Your task to perform on an android device: Search for seafood restaurants on Google Maps Image 0: 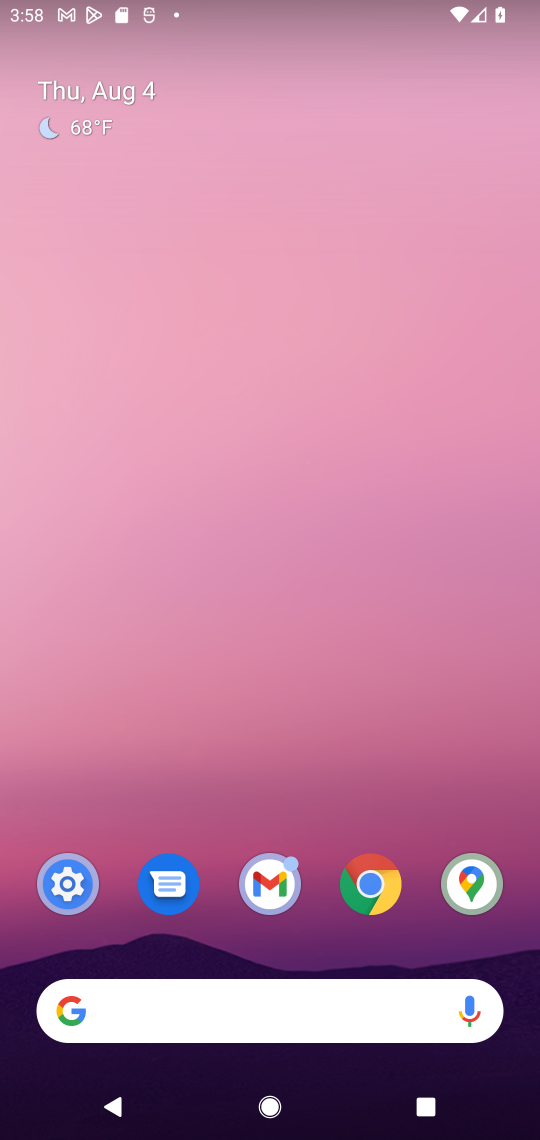
Step 0: drag from (216, 968) to (216, 410)
Your task to perform on an android device: Search for seafood restaurants on Google Maps Image 1: 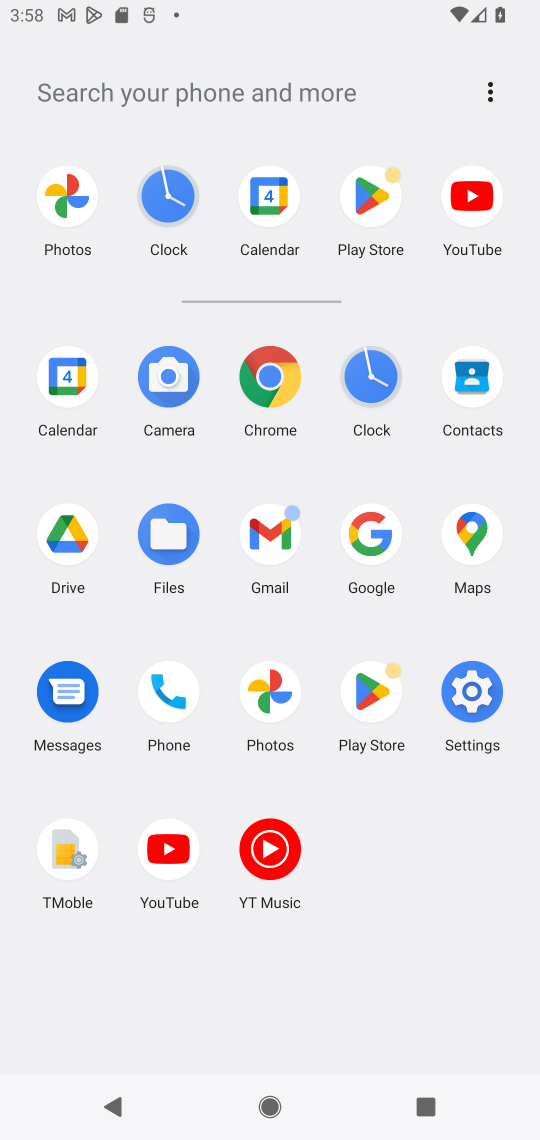
Step 1: click (464, 537)
Your task to perform on an android device: Search for seafood restaurants on Google Maps Image 2: 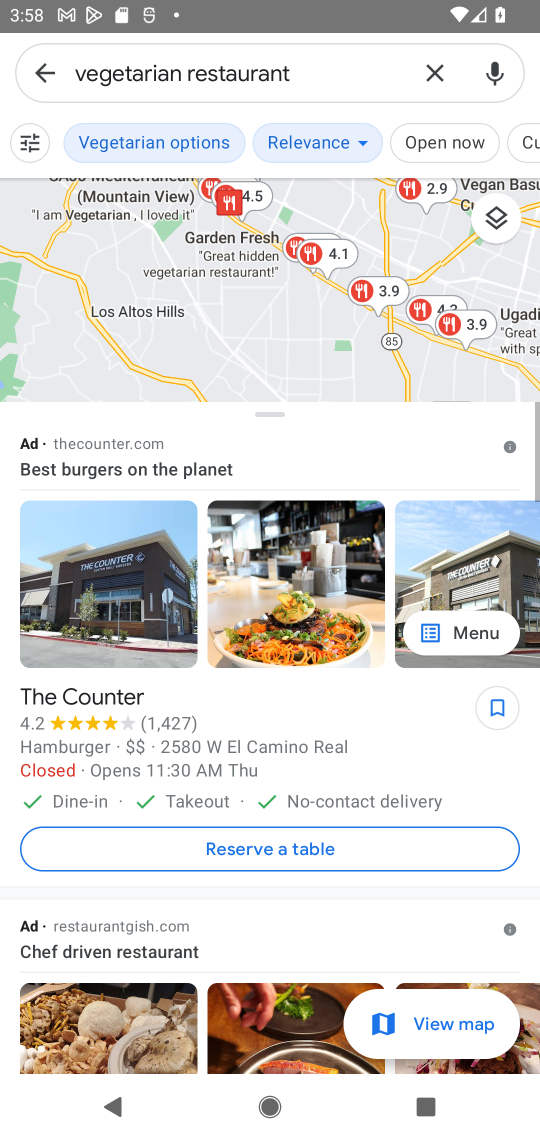
Step 2: click (435, 74)
Your task to perform on an android device: Search for seafood restaurants on Google Maps Image 3: 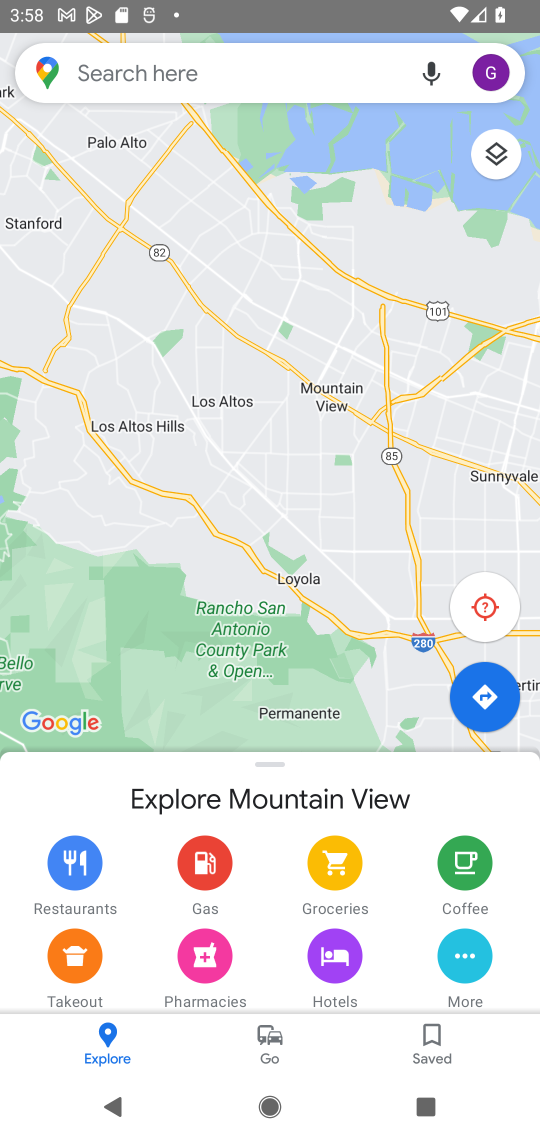
Step 3: type "seafoood"
Your task to perform on an android device: Search for seafood restaurants on Google Maps Image 4: 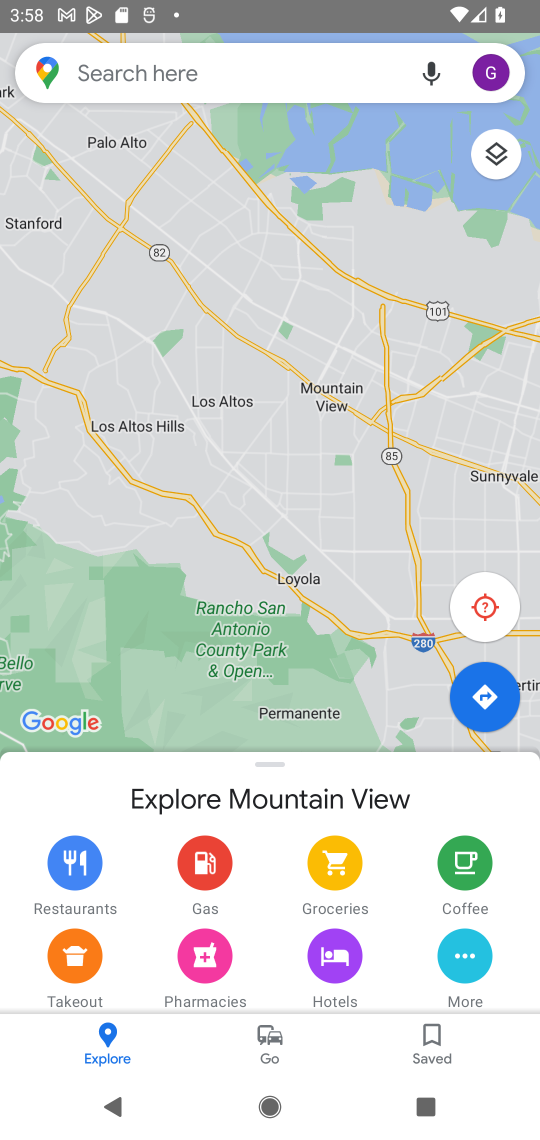
Step 4: click (214, 93)
Your task to perform on an android device: Search for seafood restaurants on Google Maps Image 5: 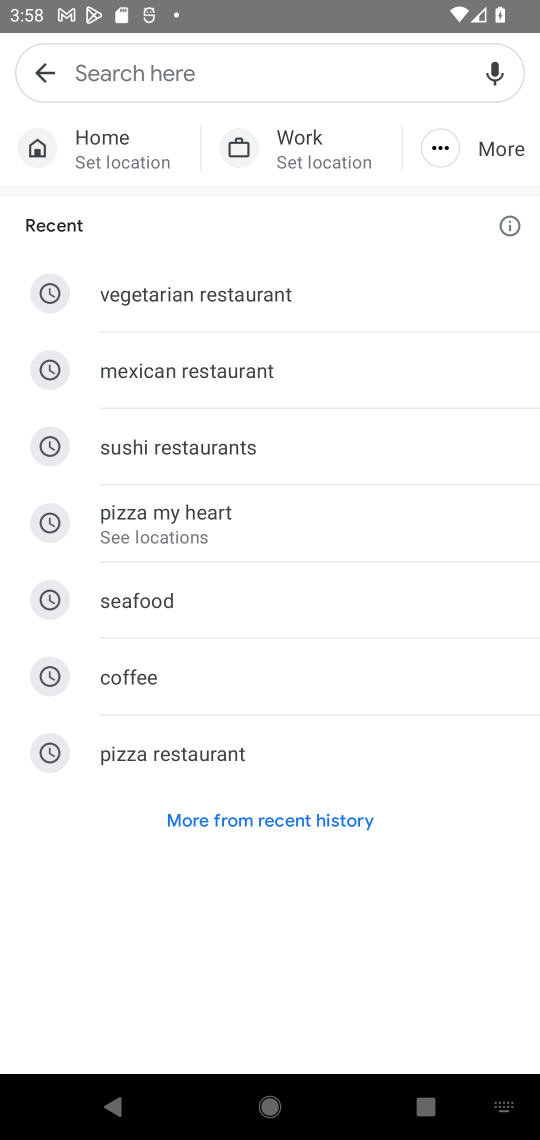
Step 5: type "seafood"
Your task to perform on an android device: Search for seafood restaurants on Google Maps Image 6: 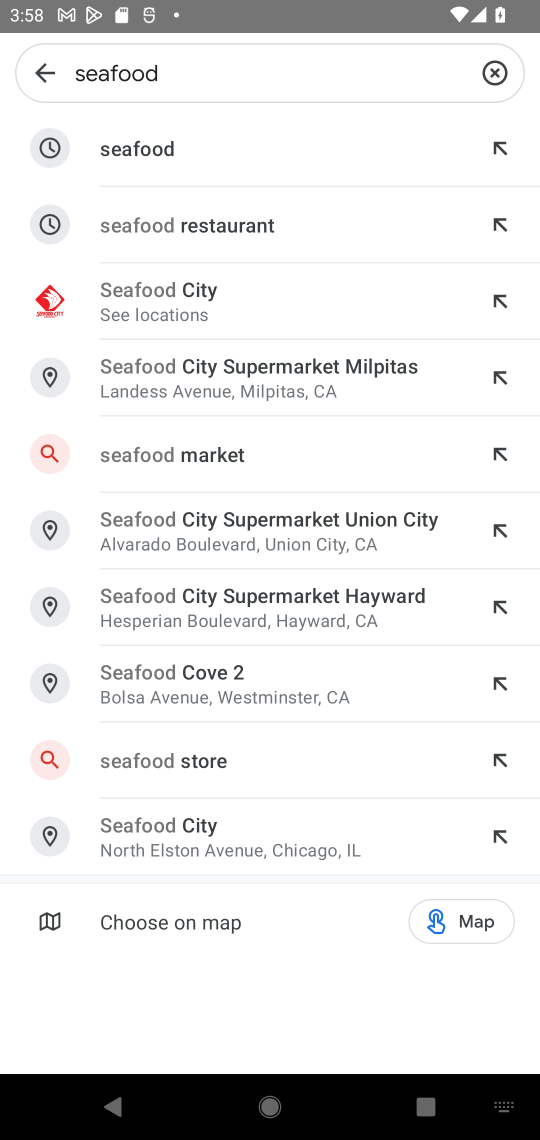
Step 6: click (270, 246)
Your task to perform on an android device: Search for seafood restaurants on Google Maps Image 7: 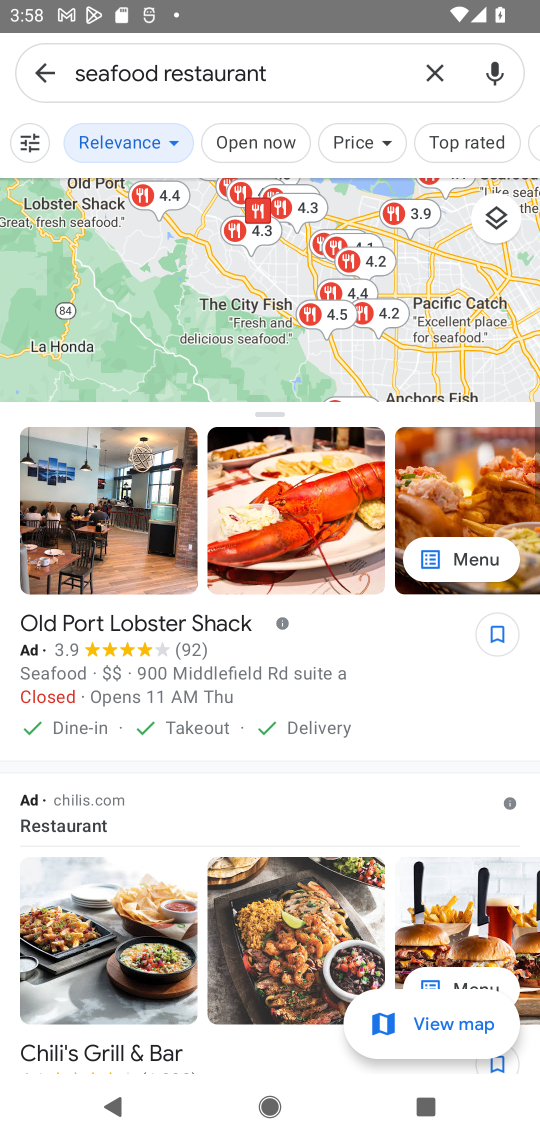
Step 7: task complete